Your task to perform on an android device: turn on airplane mode Image 0: 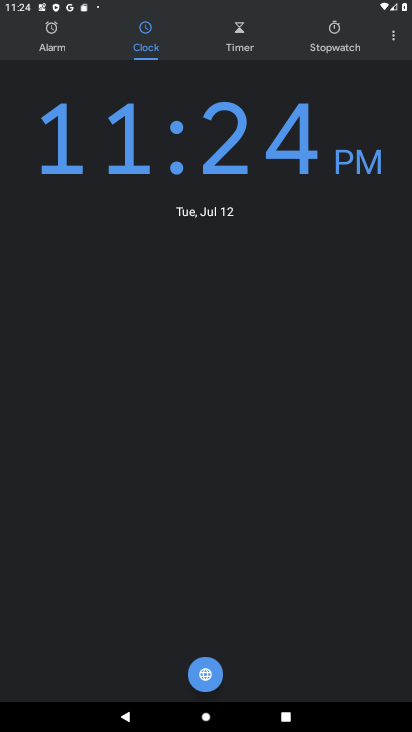
Step 0: press home button
Your task to perform on an android device: turn on airplane mode Image 1: 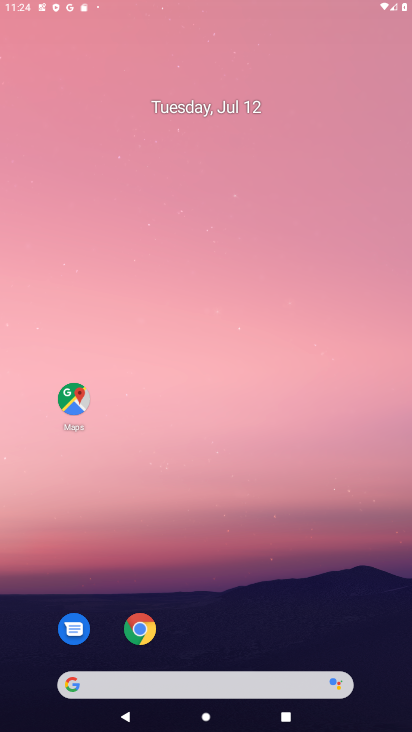
Step 1: drag from (252, 697) to (303, 305)
Your task to perform on an android device: turn on airplane mode Image 2: 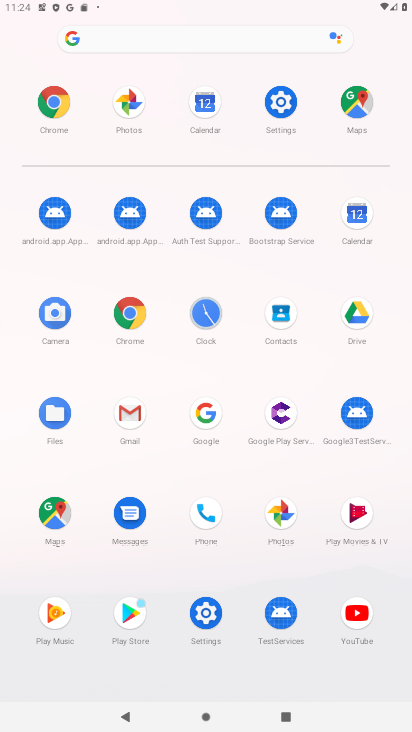
Step 2: click (285, 95)
Your task to perform on an android device: turn on airplane mode Image 3: 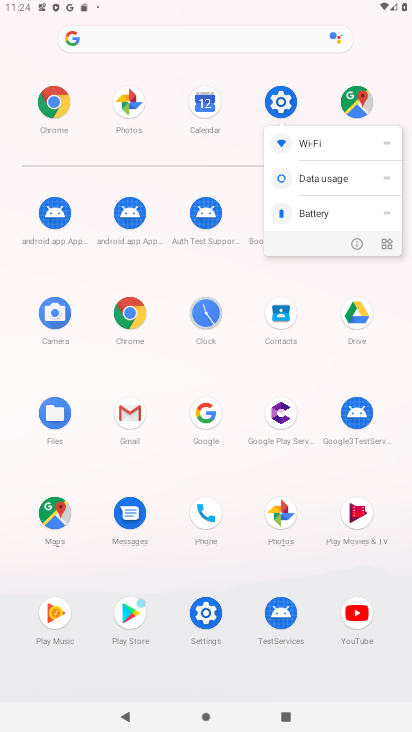
Step 3: click (281, 106)
Your task to perform on an android device: turn on airplane mode Image 4: 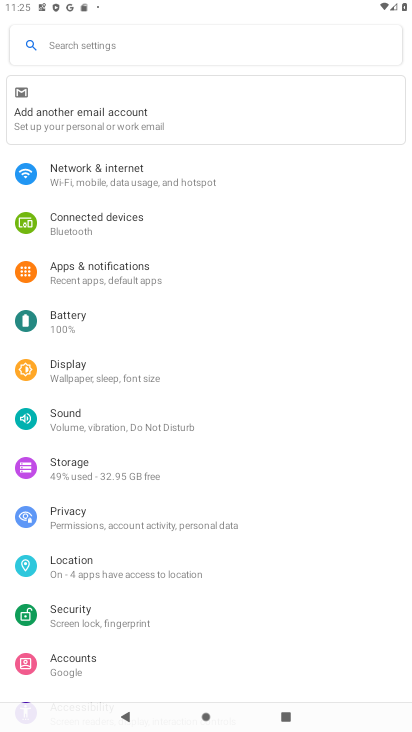
Step 4: click (106, 174)
Your task to perform on an android device: turn on airplane mode Image 5: 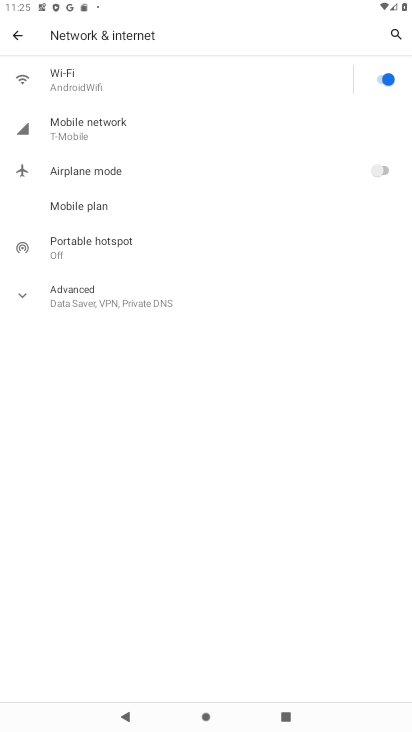
Step 5: click (380, 169)
Your task to perform on an android device: turn on airplane mode Image 6: 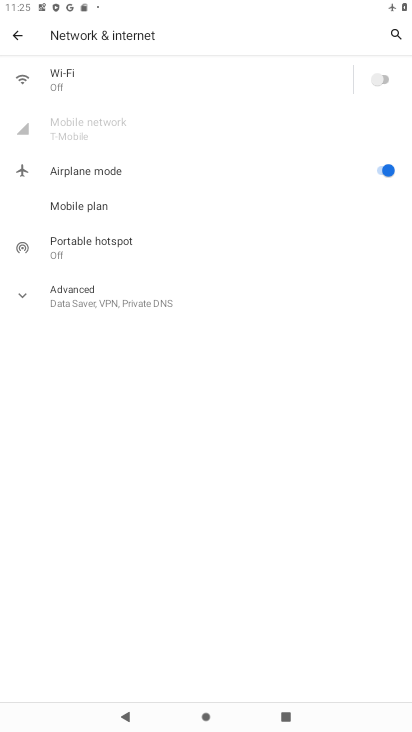
Step 6: task complete